Your task to perform on an android device: Open Wikipedia Image 0: 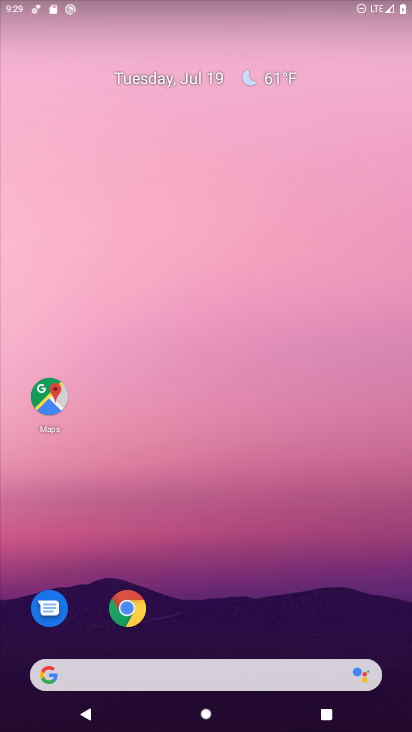
Step 0: click (127, 604)
Your task to perform on an android device: Open Wikipedia Image 1: 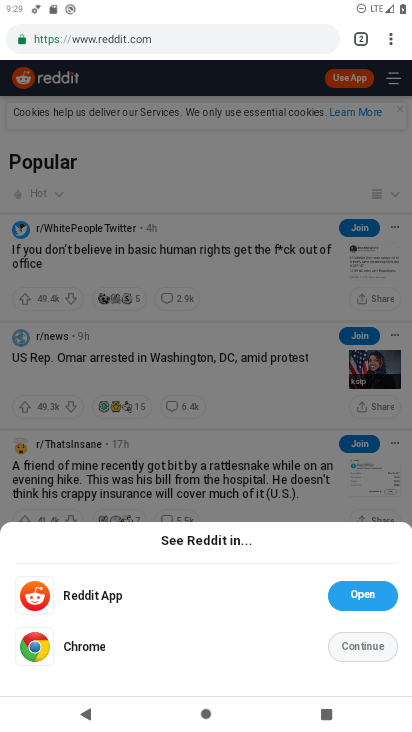
Step 1: click (392, 41)
Your task to perform on an android device: Open Wikipedia Image 2: 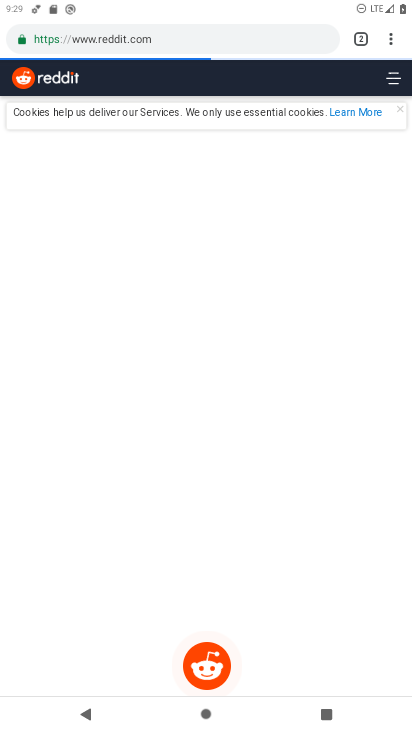
Step 2: click (390, 38)
Your task to perform on an android device: Open Wikipedia Image 3: 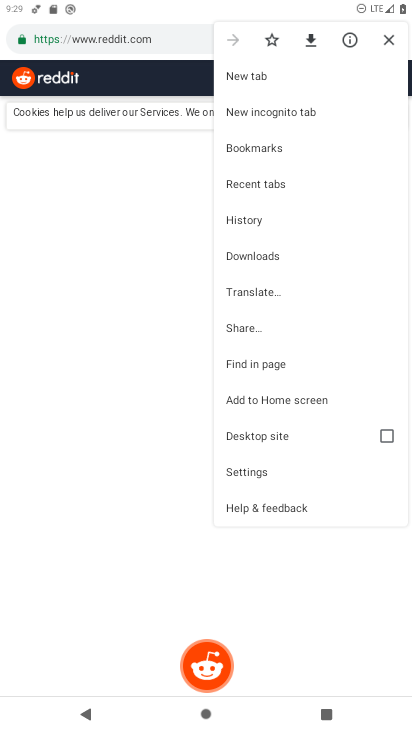
Step 3: click (265, 71)
Your task to perform on an android device: Open Wikipedia Image 4: 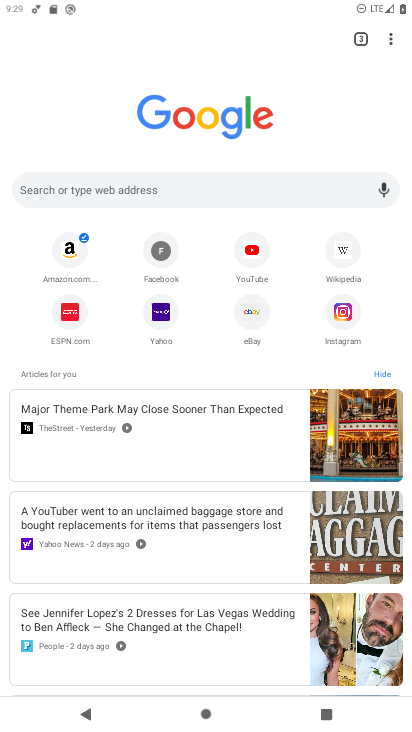
Step 4: click (342, 253)
Your task to perform on an android device: Open Wikipedia Image 5: 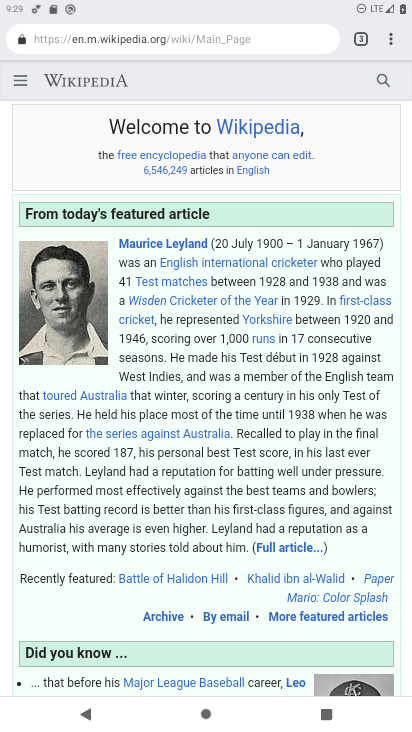
Step 5: task complete